Your task to perform on an android device: Show me the alarms in the clock app Image 0: 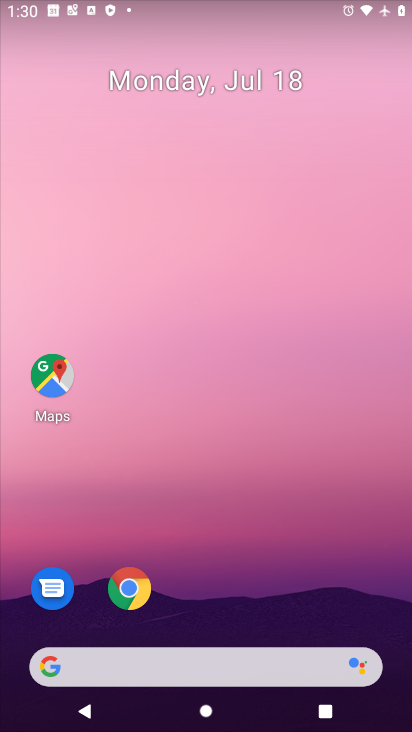
Step 0: click (405, 466)
Your task to perform on an android device: Show me the alarms in the clock app Image 1: 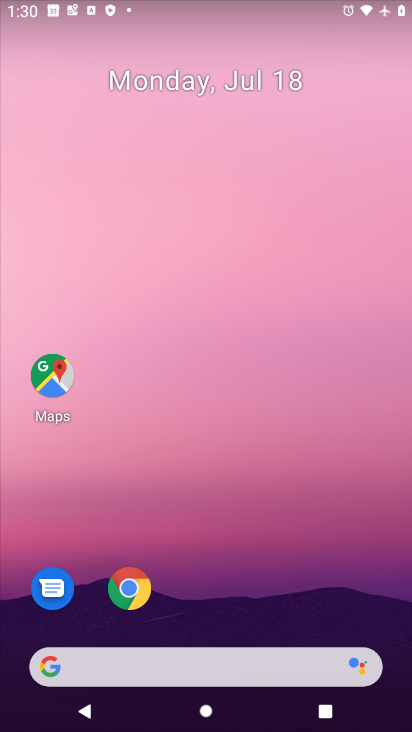
Step 1: drag from (252, 624) to (276, 264)
Your task to perform on an android device: Show me the alarms in the clock app Image 2: 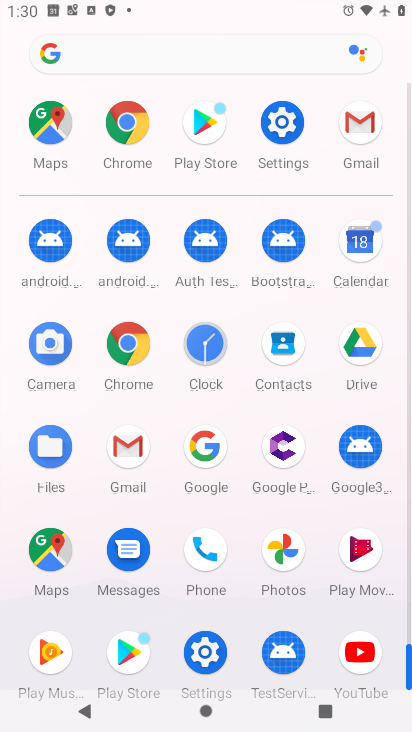
Step 2: click (203, 354)
Your task to perform on an android device: Show me the alarms in the clock app Image 3: 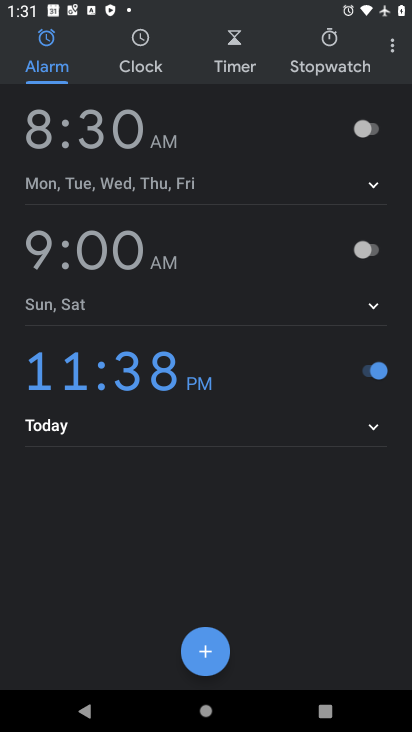
Step 3: task complete